Your task to perform on an android device: Open the calendar and show me this week's events? Image 0: 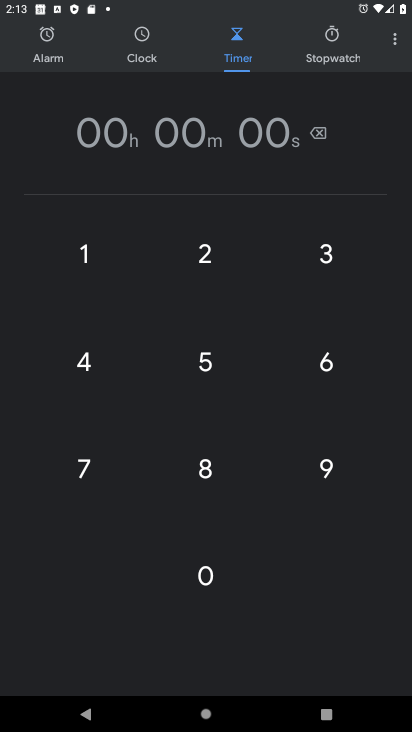
Step 0: press home button
Your task to perform on an android device: Open the calendar and show me this week's events? Image 1: 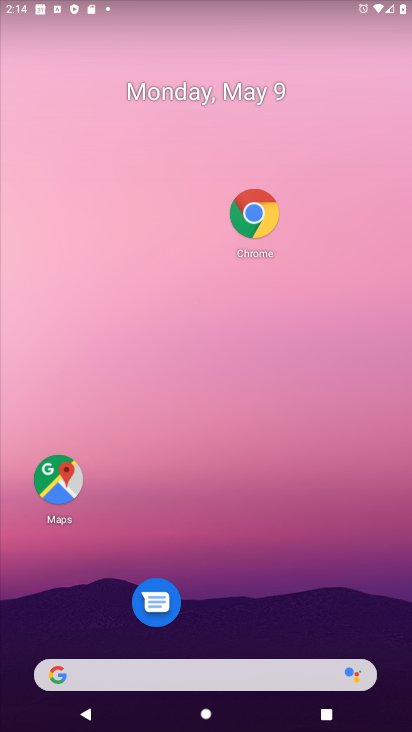
Step 1: drag from (337, 566) to (239, 129)
Your task to perform on an android device: Open the calendar and show me this week's events? Image 2: 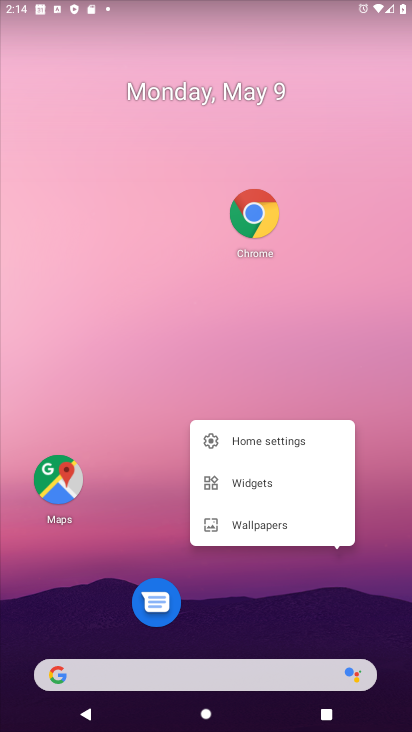
Step 2: click (121, 512)
Your task to perform on an android device: Open the calendar and show me this week's events? Image 3: 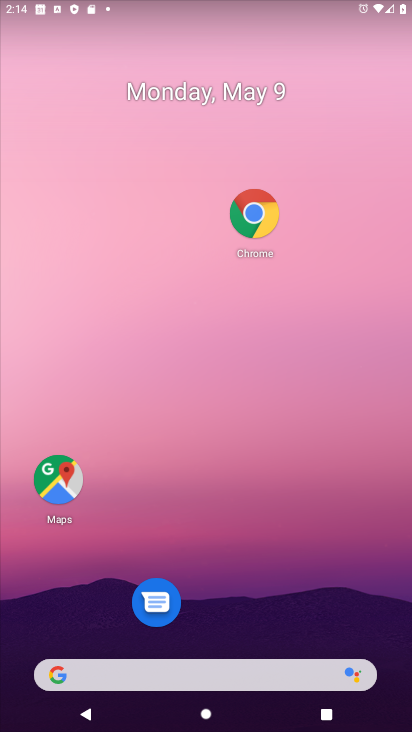
Step 3: drag from (258, 606) to (156, 69)
Your task to perform on an android device: Open the calendar and show me this week's events? Image 4: 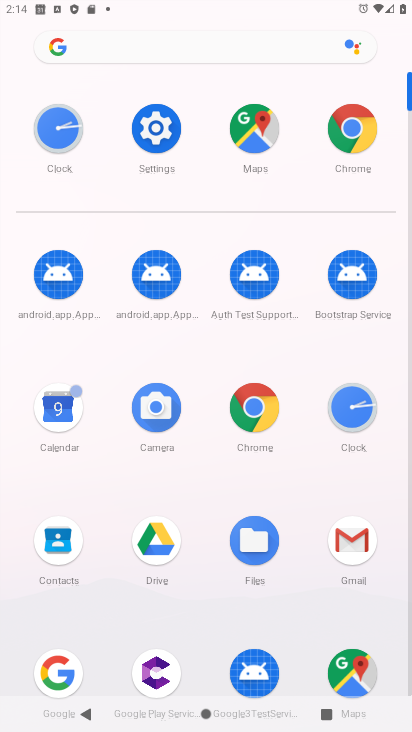
Step 4: click (156, 157)
Your task to perform on an android device: Open the calendar and show me this week's events? Image 5: 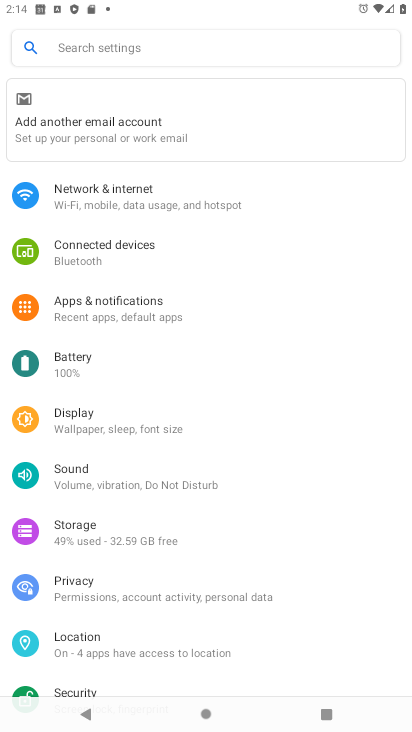
Step 5: press home button
Your task to perform on an android device: Open the calendar and show me this week's events? Image 6: 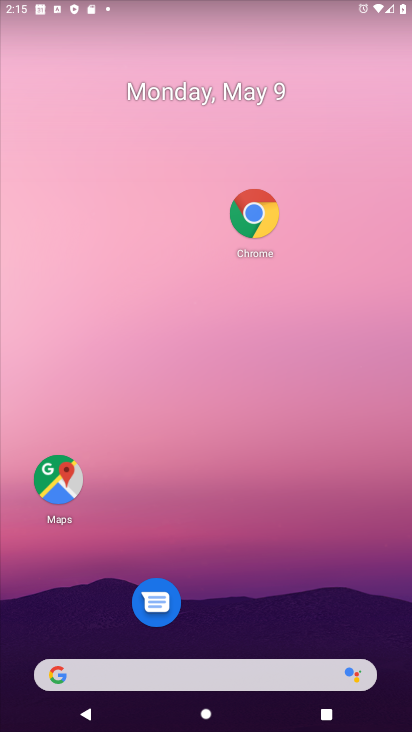
Step 6: drag from (328, 606) to (306, 301)
Your task to perform on an android device: Open the calendar and show me this week's events? Image 7: 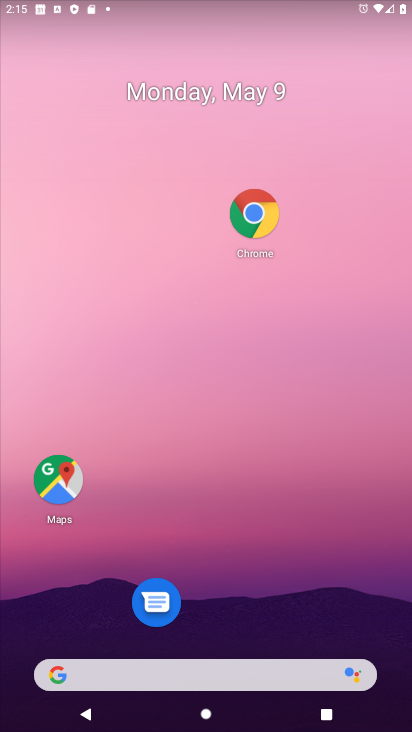
Step 7: drag from (291, 566) to (252, 259)
Your task to perform on an android device: Open the calendar and show me this week's events? Image 8: 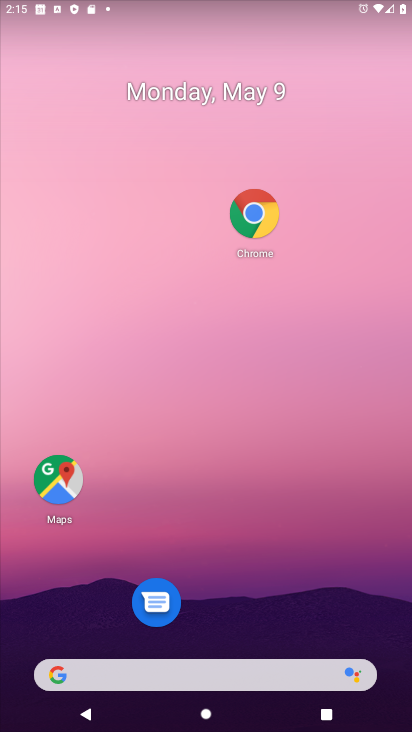
Step 8: drag from (225, 594) to (207, 142)
Your task to perform on an android device: Open the calendar and show me this week's events? Image 9: 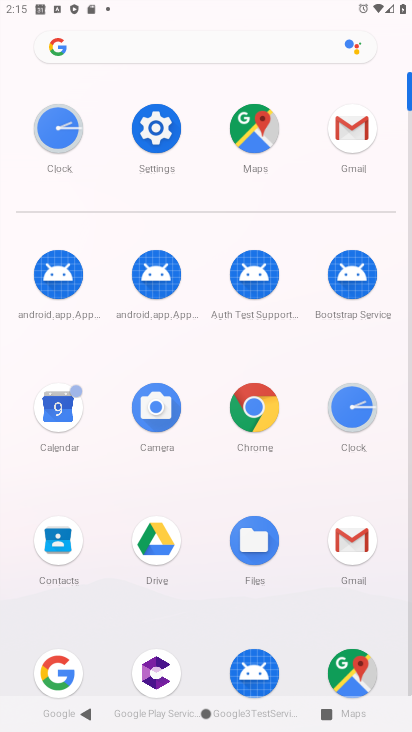
Step 9: click (173, 130)
Your task to perform on an android device: Open the calendar and show me this week's events? Image 10: 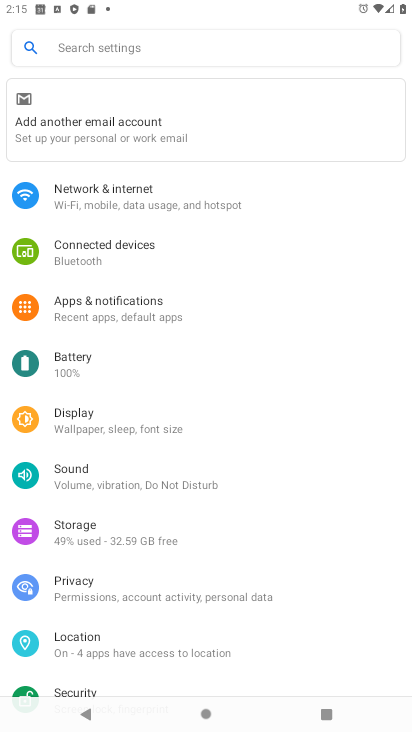
Step 10: press home button
Your task to perform on an android device: Open the calendar and show me this week's events? Image 11: 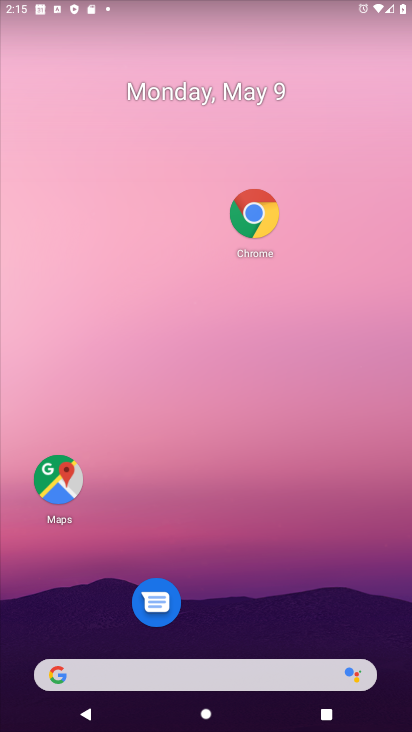
Step 11: drag from (303, 604) to (219, 310)
Your task to perform on an android device: Open the calendar and show me this week's events? Image 12: 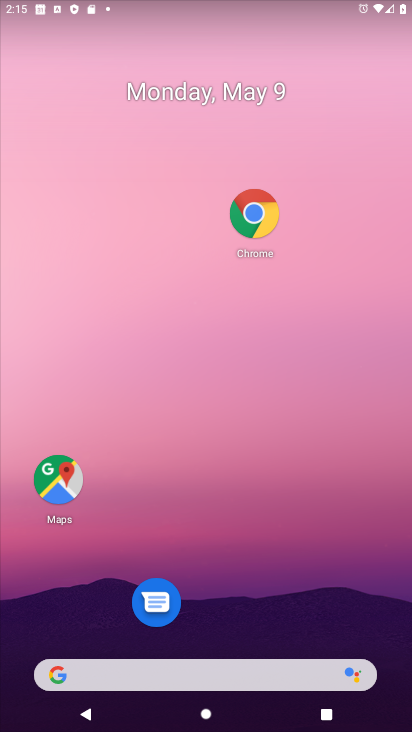
Step 12: drag from (238, 629) to (237, 161)
Your task to perform on an android device: Open the calendar and show me this week's events? Image 13: 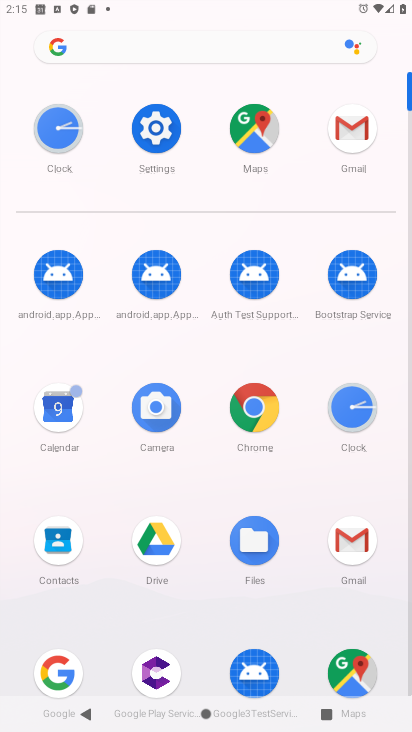
Step 13: click (163, 156)
Your task to perform on an android device: Open the calendar and show me this week's events? Image 14: 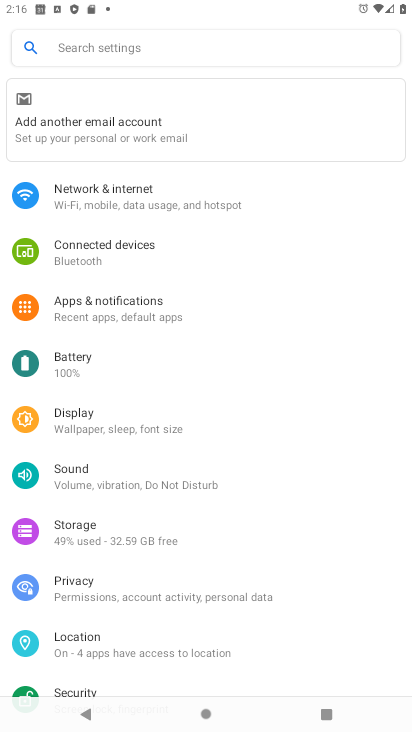
Step 14: task complete